Your task to perform on an android device: toggle priority inbox in the gmail app Image 0: 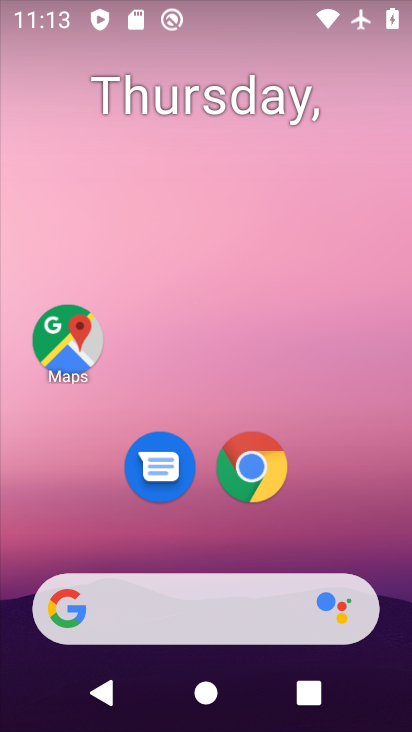
Step 0: drag from (340, 523) to (367, 0)
Your task to perform on an android device: toggle priority inbox in the gmail app Image 1: 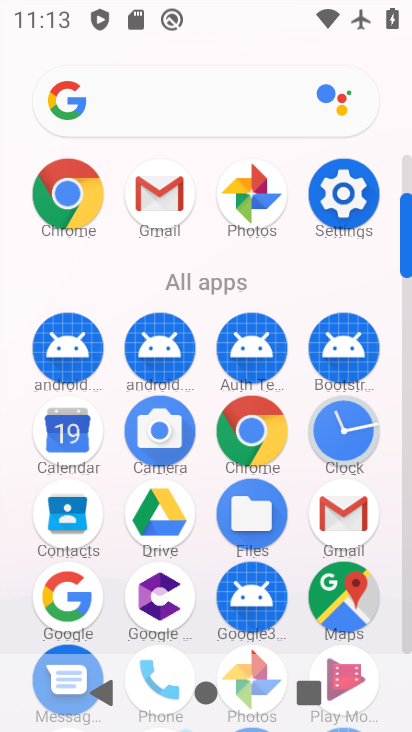
Step 1: click (162, 199)
Your task to perform on an android device: toggle priority inbox in the gmail app Image 2: 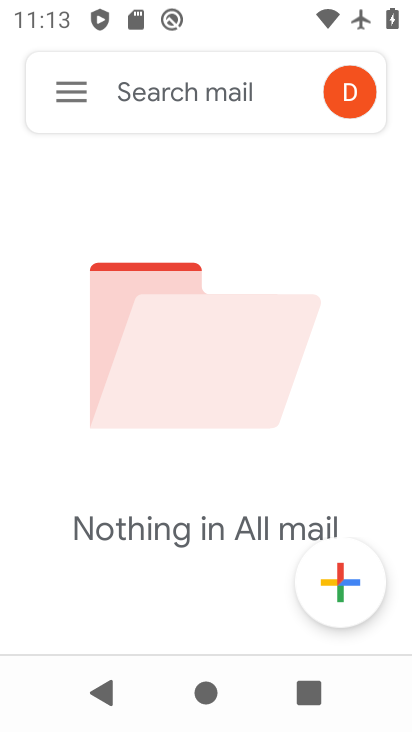
Step 2: click (67, 100)
Your task to perform on an android device: toggle priority inbox in the gmail app Image 3: 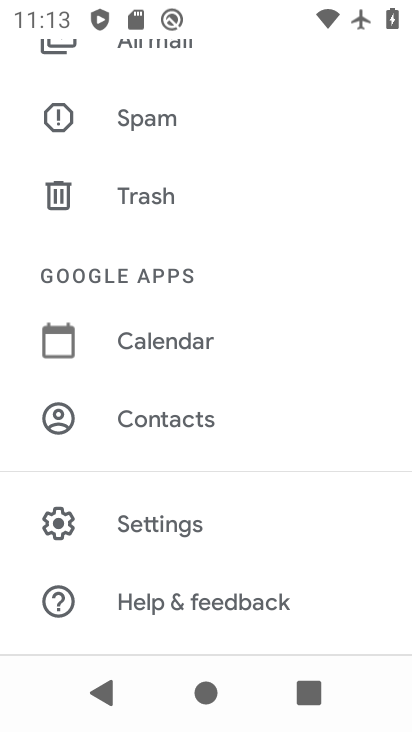
Step 3: click (165, 522)
Your task to perform on an android device: toggle priority inbox in the gmail app Image 4: 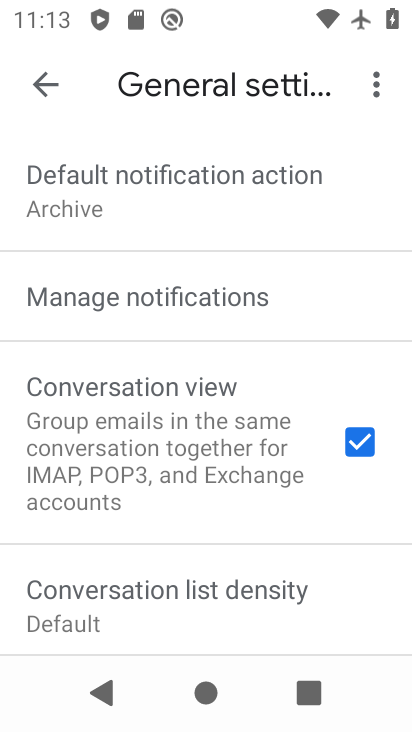
Step 4: click (46, 85)
Your task to perform on an android device: toggle priority inbox in the gmail app Image 5: 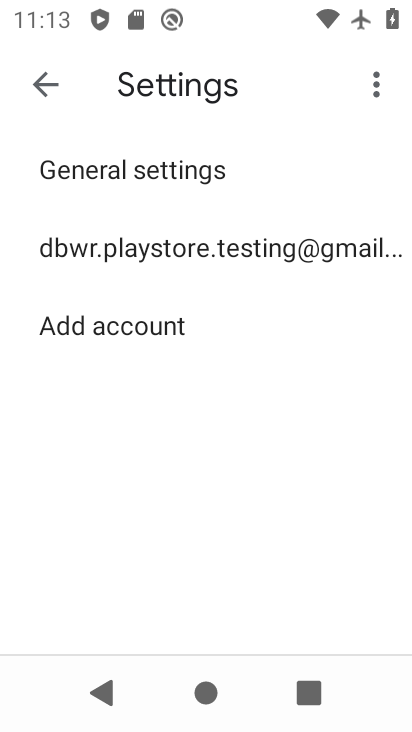
Step 5: click (93, 242)
Your task to perform on an android device: toggle priority inbox in the gmail app Image 6: 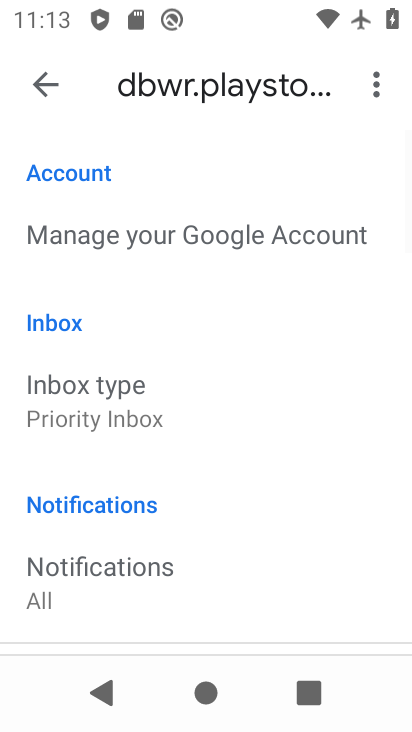
Step 6: click (98, 409)
Your task to perform on an android device: toggle priority inbox in the gmail app Image 7: 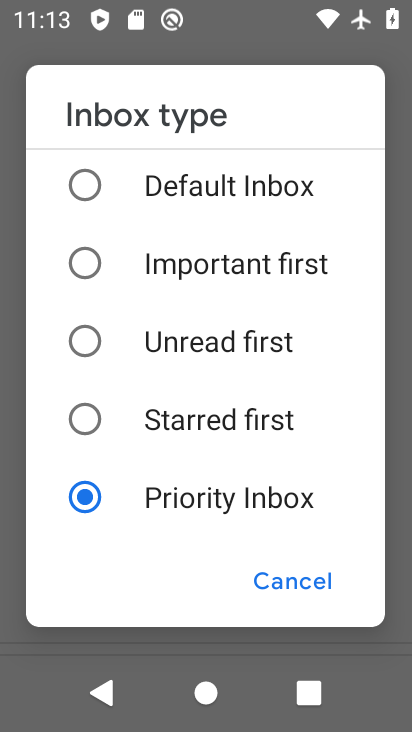
Step 7: click (81, 190)
Your task to perform on an android device: toggle priority inbox in the gmail app Image 8: 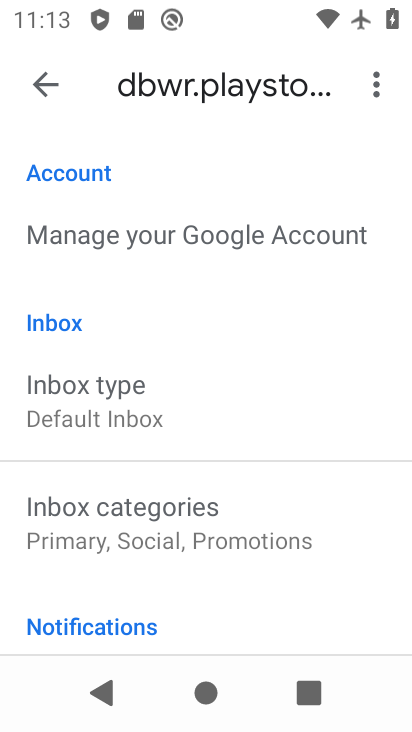
Step 8: task complete